Your task to perform on an android device: Show me the alarms in the clock app Image 0: 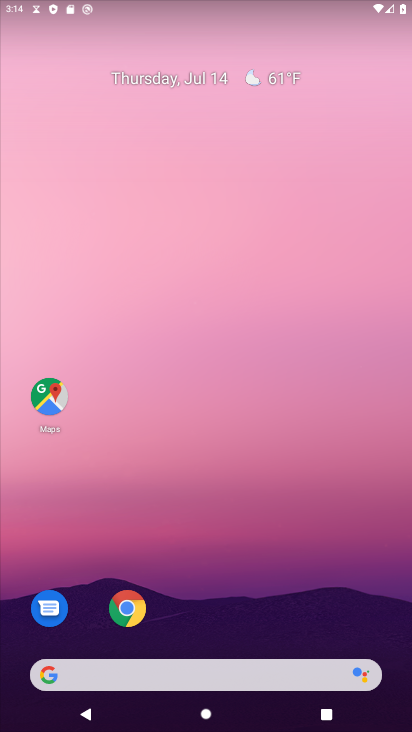
Step 0: drag from (205, 673) to (214, 95)
Your task to perform on an android device: Show me the alarms in the clock app Image 1: 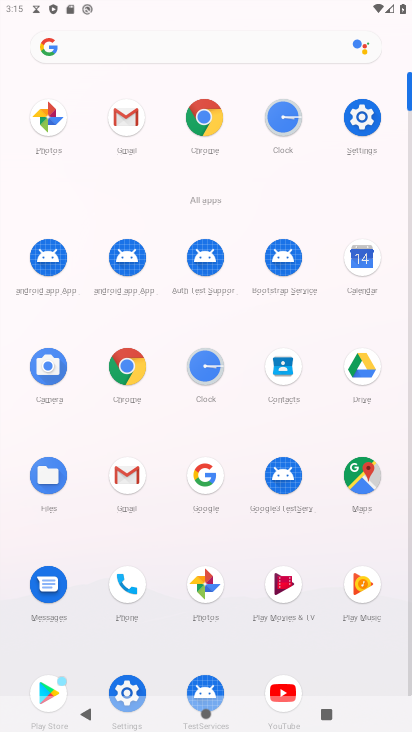
Step 1: click (199, 365)
Your task to perform on an android device: Show me the alarms in the clock app Image 2: 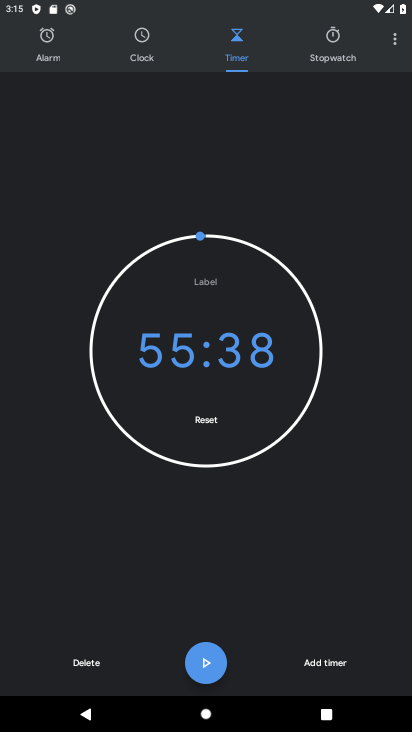
Step 2: click (57, 56)
Your task to perform on an android device: Show me the alarms in the clock app Image 3: 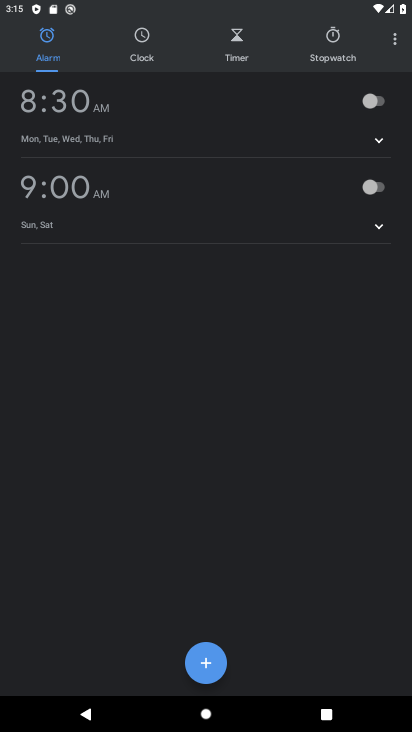
Step 3: task complete